Your task to perform on an android device: add a contact Image 0: 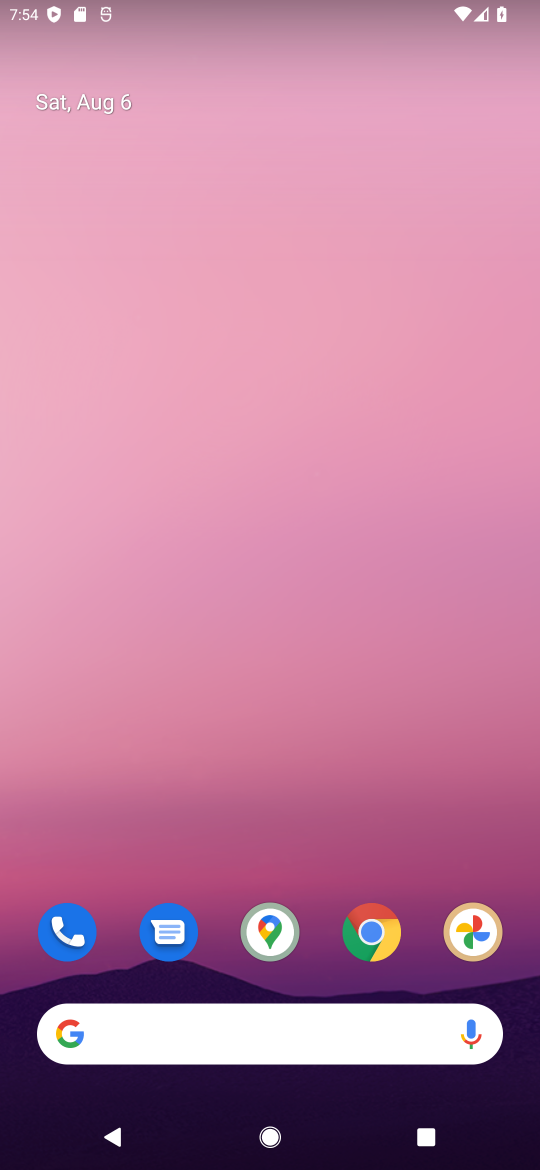
Step 0: press home button
Your task to perform on an android device: add a contact Image 1: 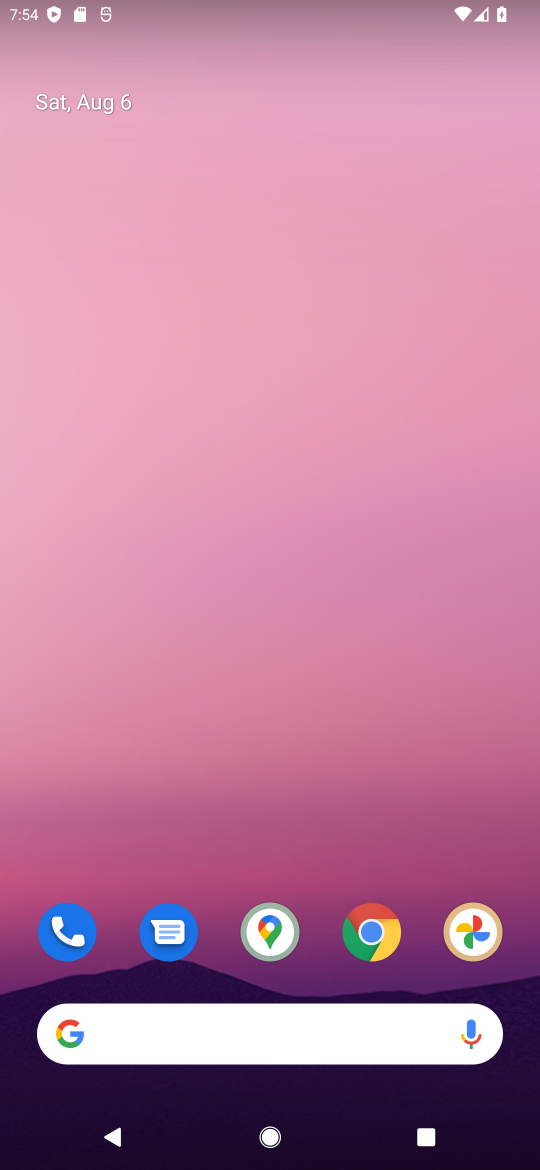
Step 1: drag from (190, 1032) to (249, 266)
Your task to perform on an android device: add a contact Image 2: 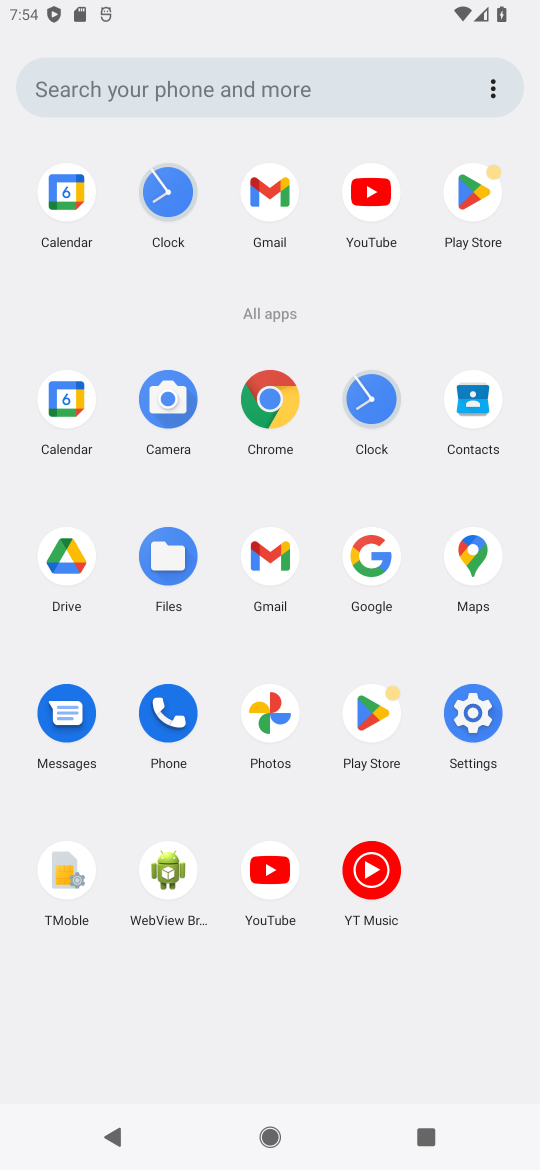
Step 2: click (476, 406)
Your task to perform on an android device: add a contact Image 3: 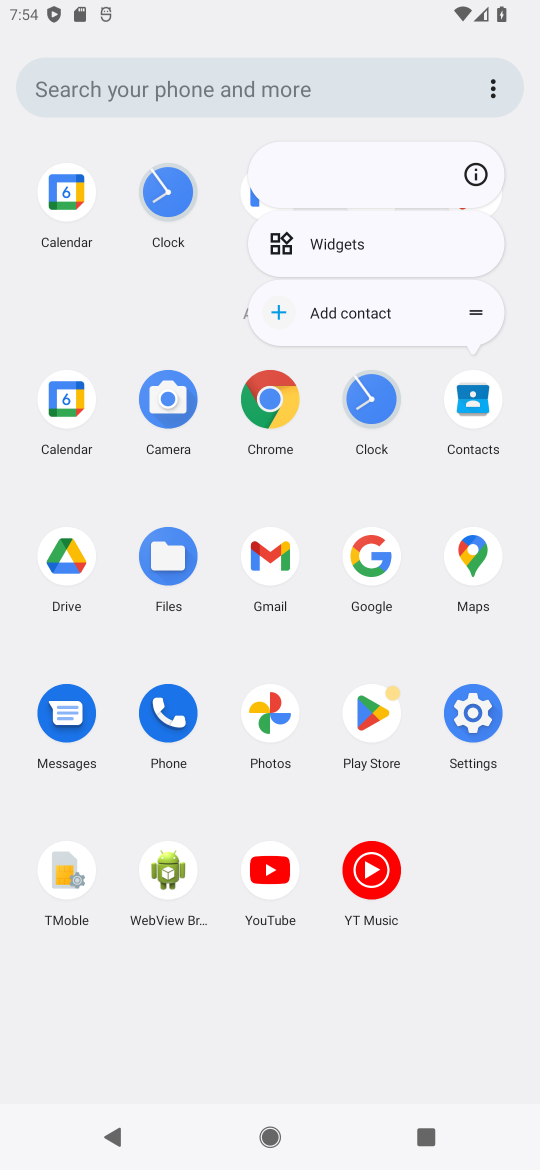
Step 3: click (476, 406)
Your task to perform on an android device: add a contact Image 4: 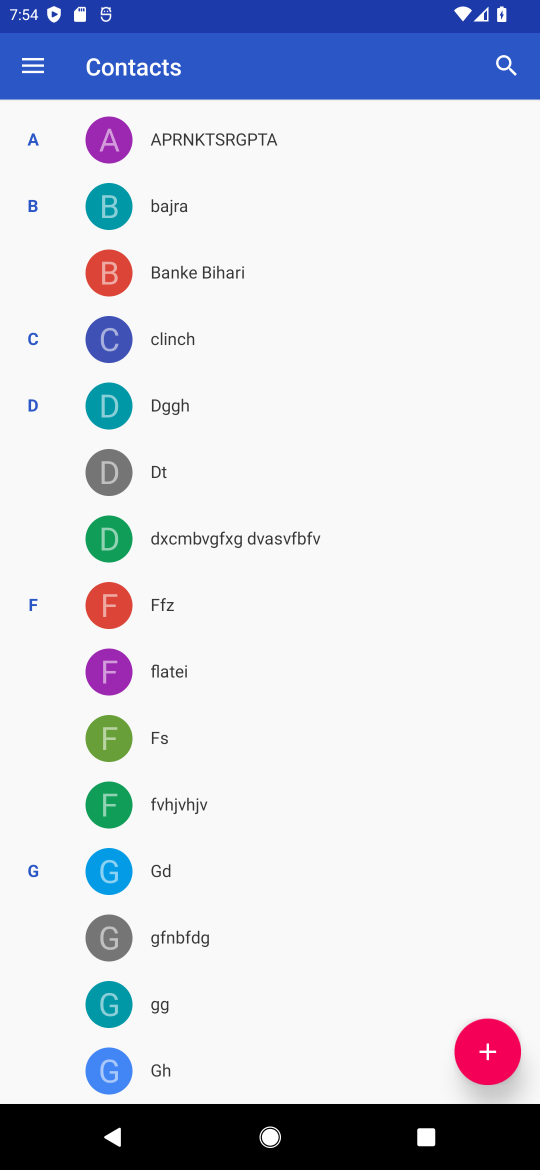
Step 4: click (486, 1043)
Your task to perform on an android device: add a contact Image 5: 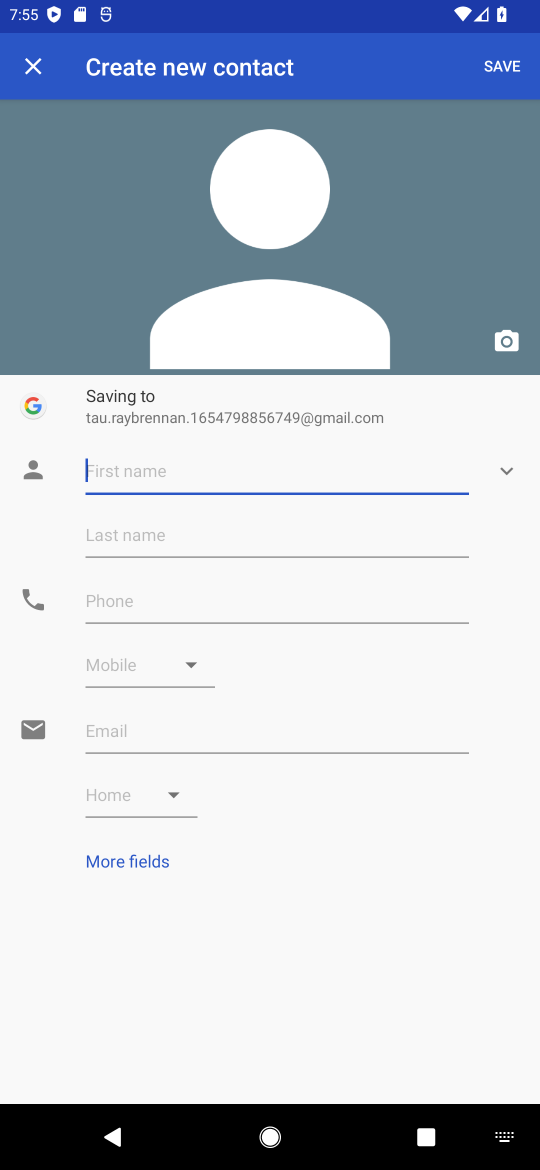
Step 5: type "byrrgchj"
Your task to perform on an android device: add a contact Image 6: 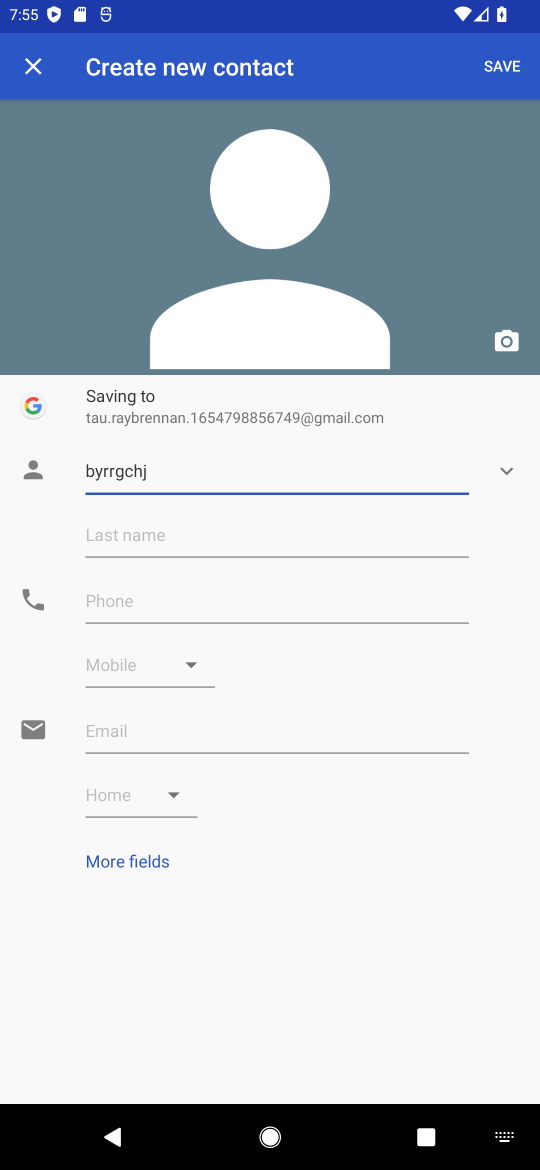
Step 6: click (119, 598)
Your task to perform on an android device: add a contact Image 7: 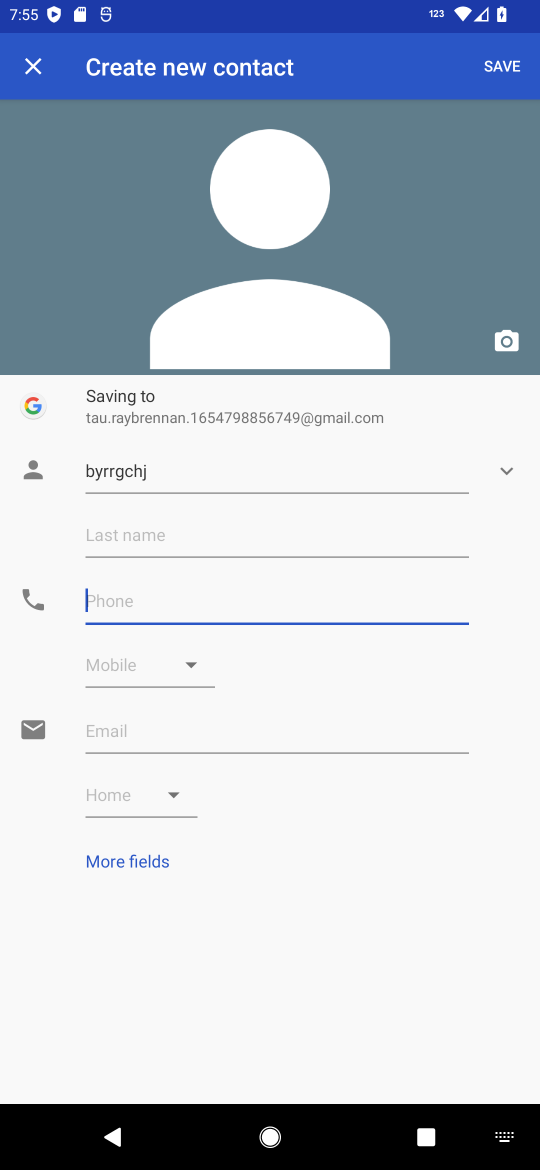
Step 7: type "7699887"
Your task to perform on an android device: add a contact Image 8: 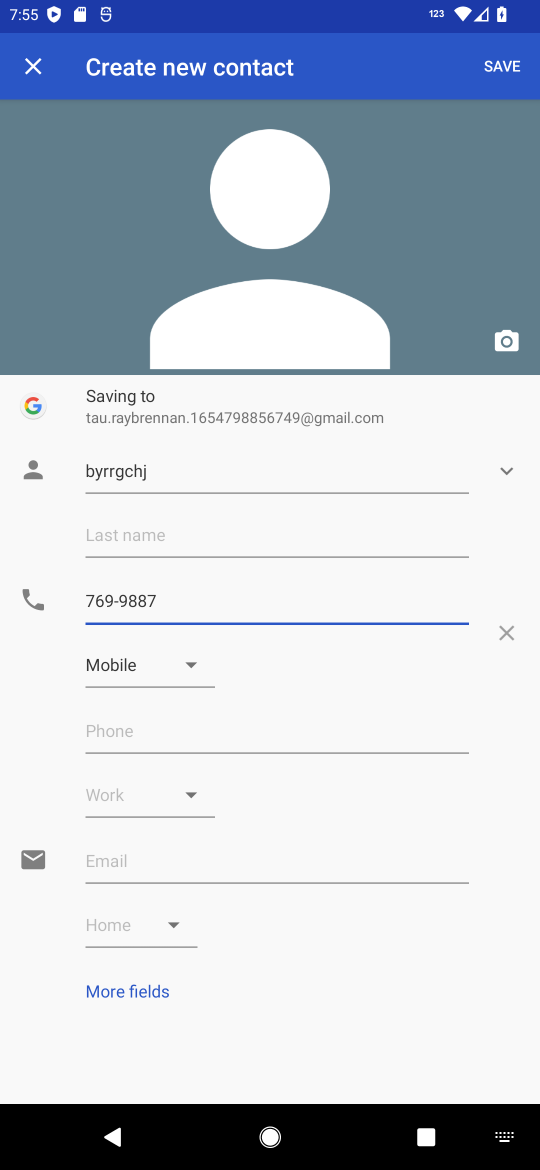
Step 8: click (515, 69)
Your task to perform on an android device: add a contact Image 9: 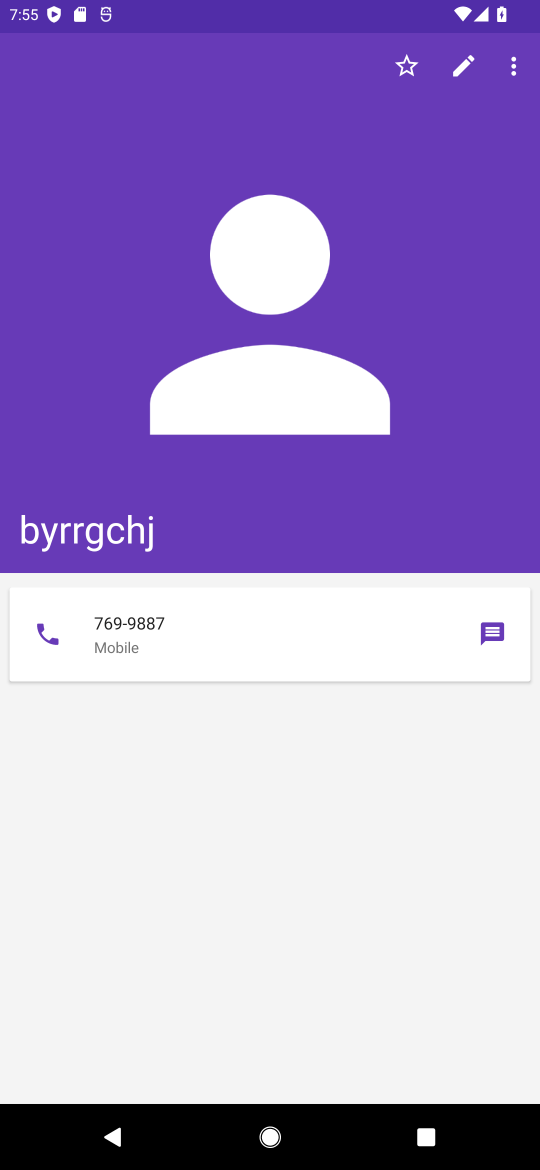
Step 9: task complete